Your task to perform on an android device: turn on the 24-hour format for clock Image 0: 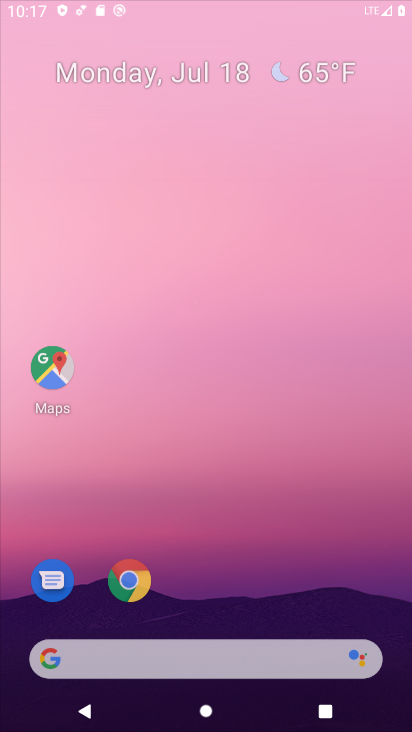
Step 0: press home button
Your task to perform on an android device: turn on the 24-hour format for clock Image 1: 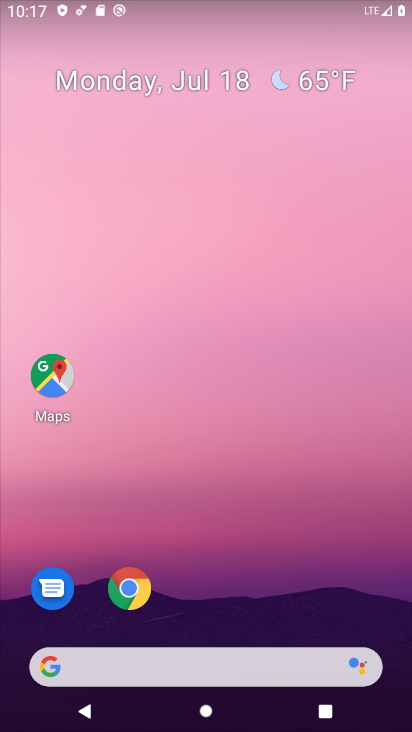
Step 1: drag from (233, 118) to (241, 27)
Your task to perform on an android device: turn on the 24-hour format for clock Image 2: 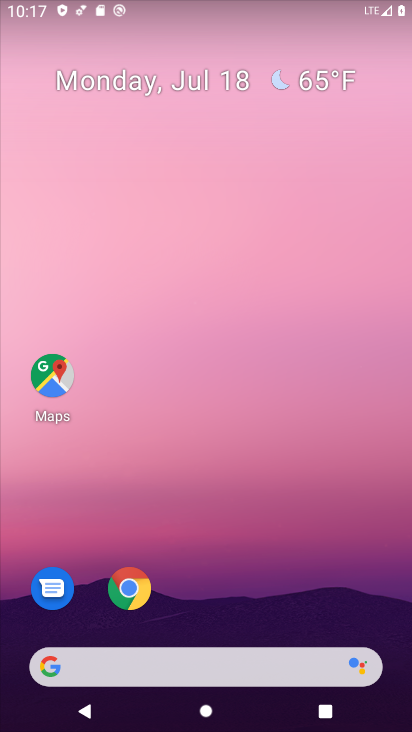
Step 2: drag from (215, 531) to (411, 718)
Your task to perform on an android device: turn on the 24-hour format for clock Image 3: 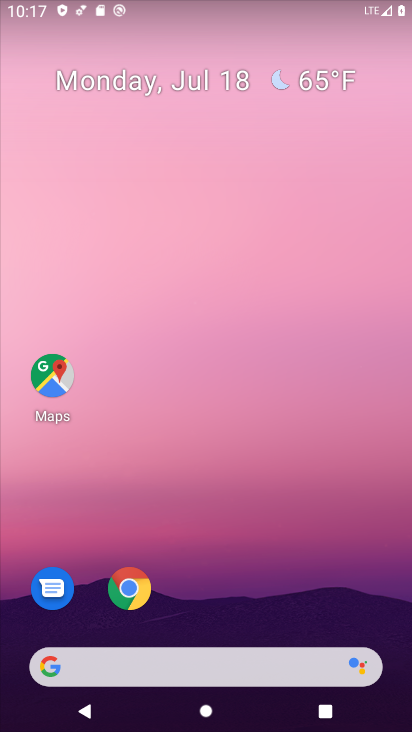
Step 3: drag from (257, 570) to (400, 492)
Your task to perform on an android device: turn on the 24-hour format for clock Image 4: 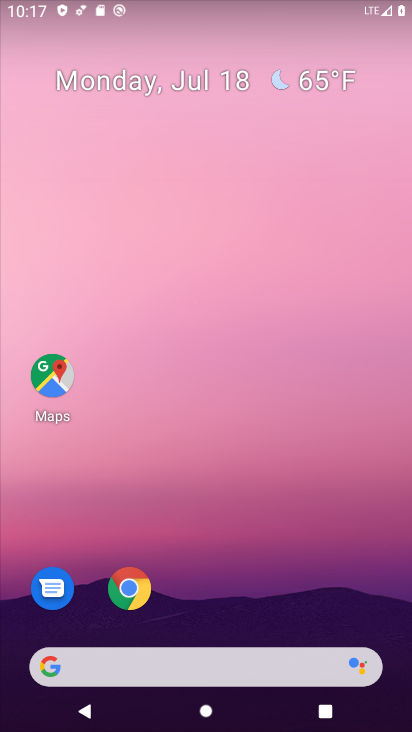
Step 4: drag from (239, 567) to (408, 508)
Your task to perform on an android device: turn on the 24-hour format for clock Image 5: 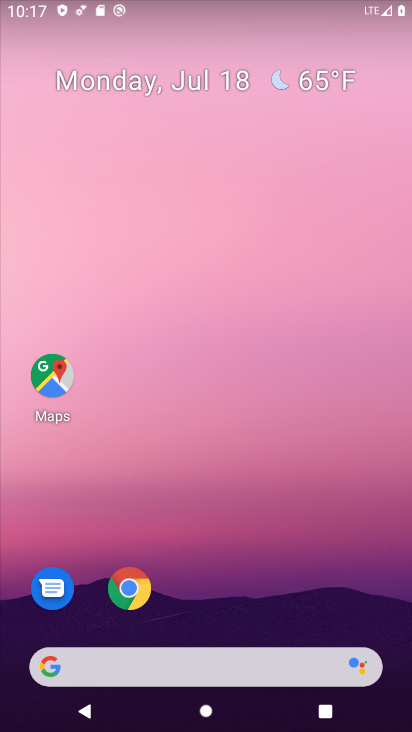
Step 5: drag from (227, 656) to (257, 5)
Your task to perform on an android device: turn on the 24-hour format for clock Image 6: 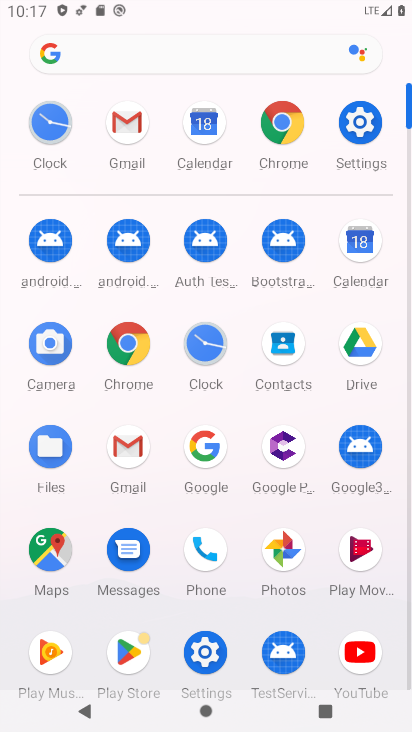
Step 6: click (202, 347)
Your task to perform on an android device: turn on the 24-hour format for clock Image 7: 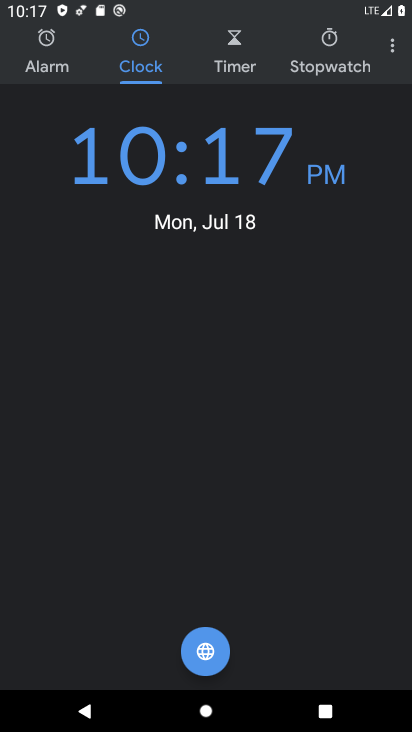
Step 7: click (399, 42)
Your task to perform on an android device: turn on the 24-hour format for clock Image 8: 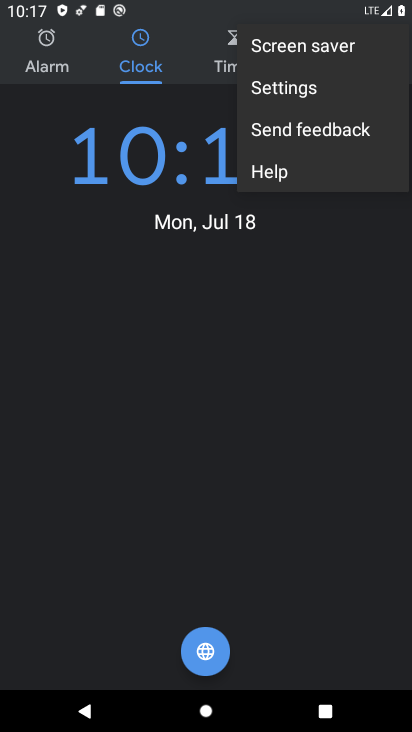
Step 8: click (328, 89)
Your task to perform on an android device: turn on the 24-hour format for clock Image 9: 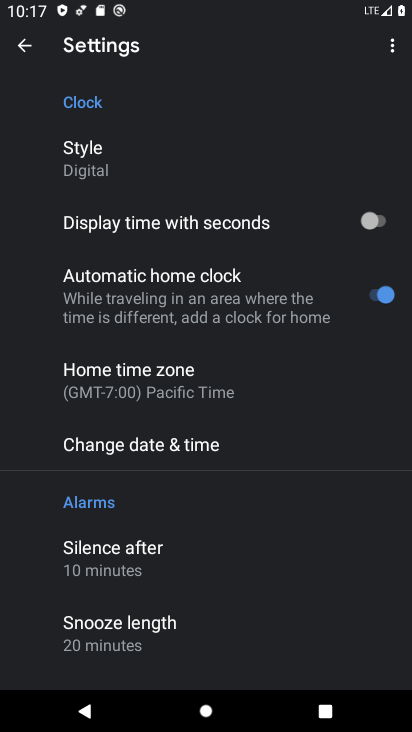
Step 9: click (116, 449)
Your task to perform on an android device: turn on the 24-hour format for clock Image 10: 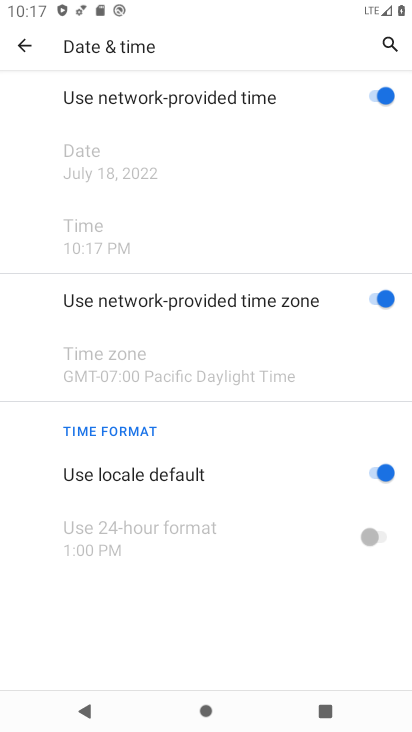
Step 10: click (378, 469)
Your task to perform on an android device: turn on the 24-hour format for clock Image 11: 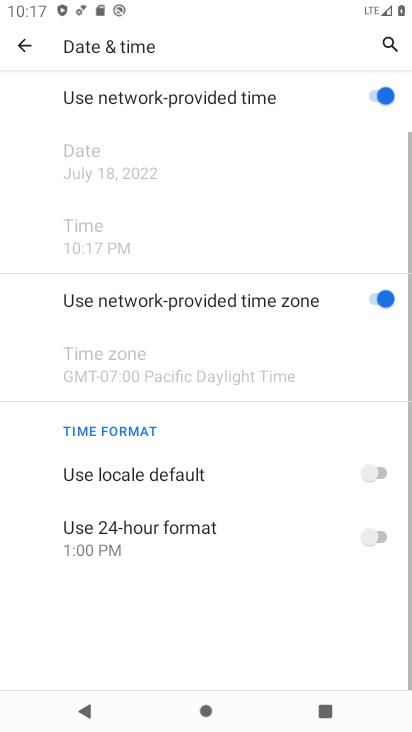
Step 11: click (373, 530)
Your task to perform on an android device: turn on the 24-hour format for clock Image 12: 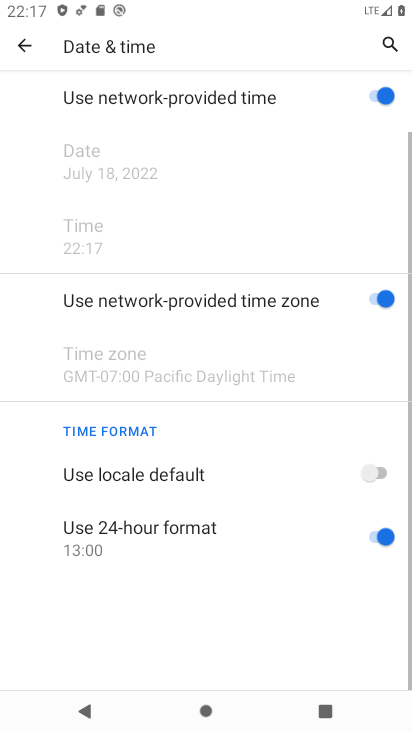
Step 12: task complete